Your task to perform on an android device: Go to settings Image 0: 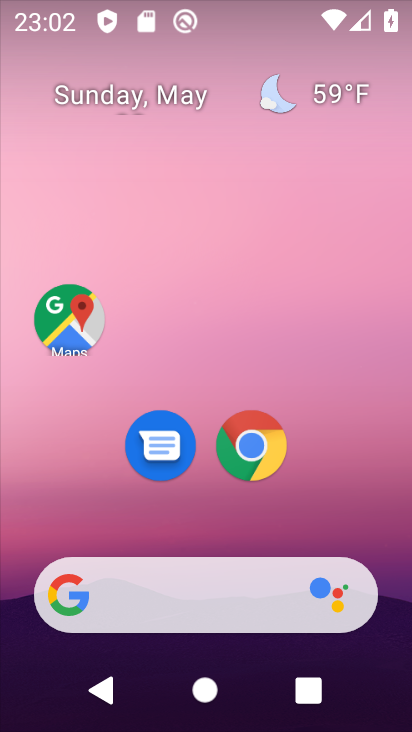
Step 0: drag from (294, 561) to (334, 211)
Your task to perform on an android device: Go to settings Image 1: 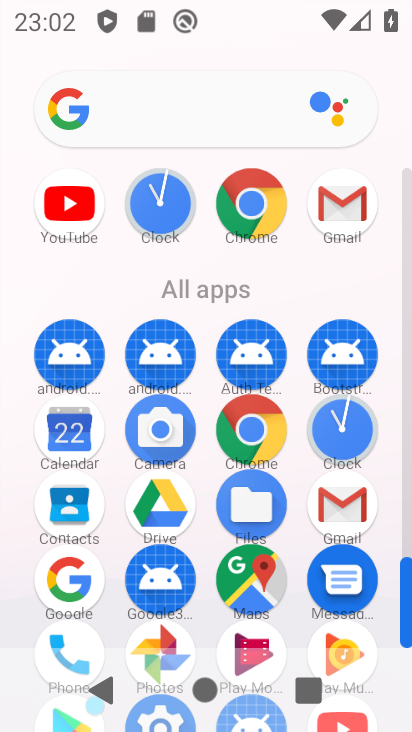
Step 1: drag from (297, 283) to (261, 20)
Your task to perform on an android device: Go to settings Image 2: 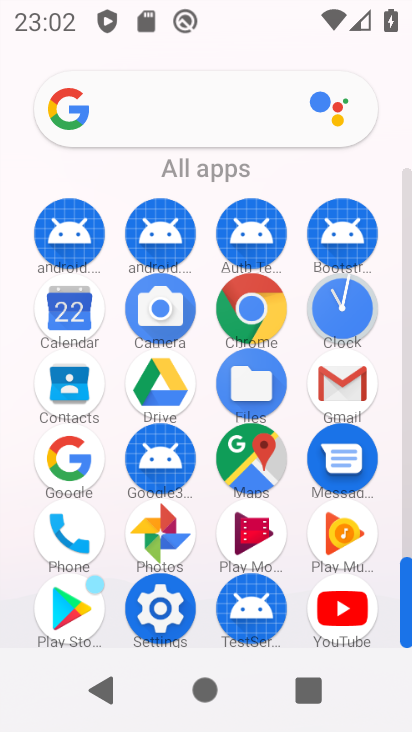
Step 2: click (171, 613)
Your task to perform on an android device: Go to settings Image 3: 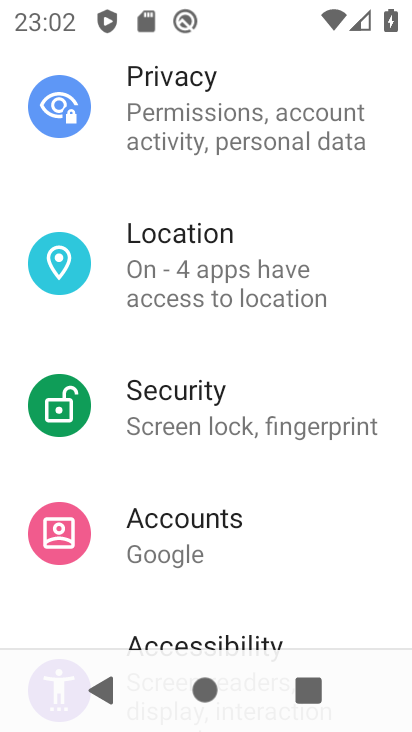
Step 3: task complete